Your task to perform on an android device: What's the weather? Image 0: 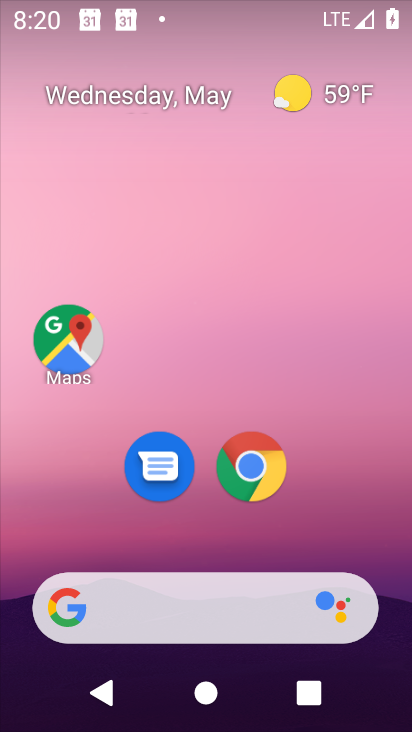
Step 0: drag from (334, 536) to (326, 288)
Your task to perform on an android device: What's the weather? Image 1: 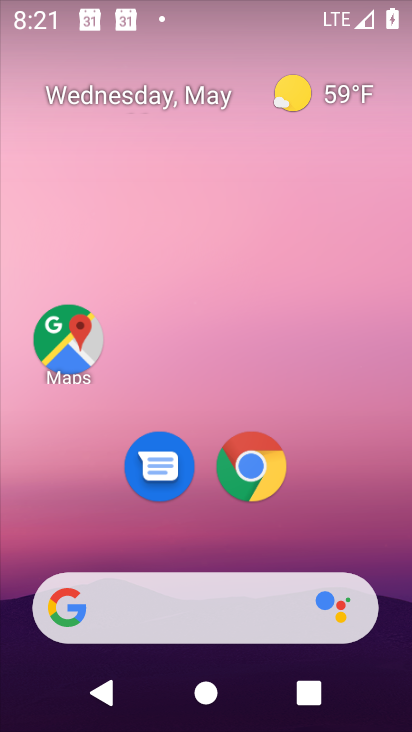
Step 1: click (252, 474)
Your task to perform on an android device: What's the weather? Image 2: 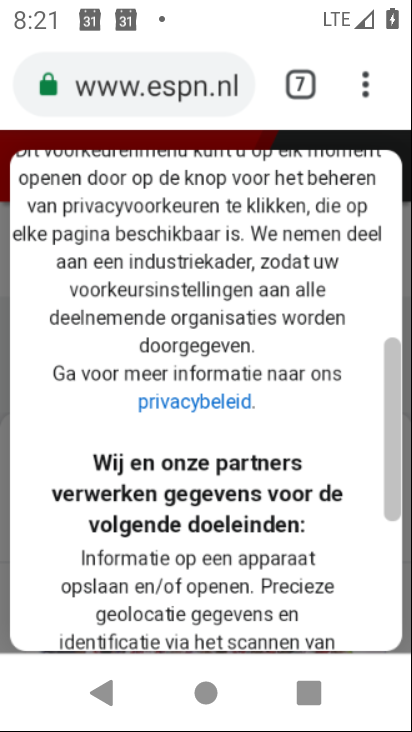
Step 2: click (345, 81)
Your task to perform on an android device: What's the weather? Image 3: 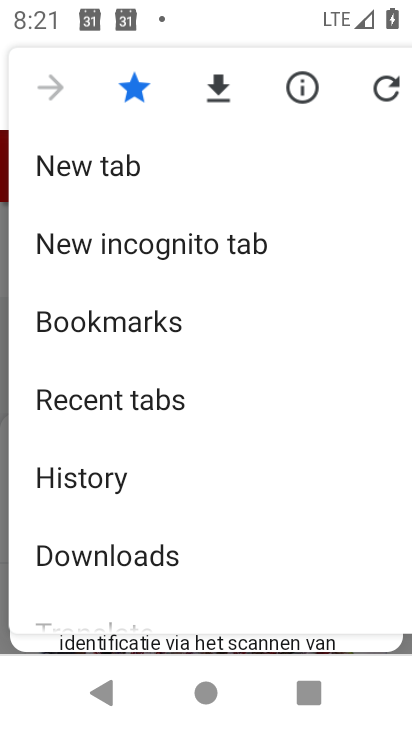
Step 3: click (108, 164)
Your task to perform on an android device: What's the weather? Image 4: 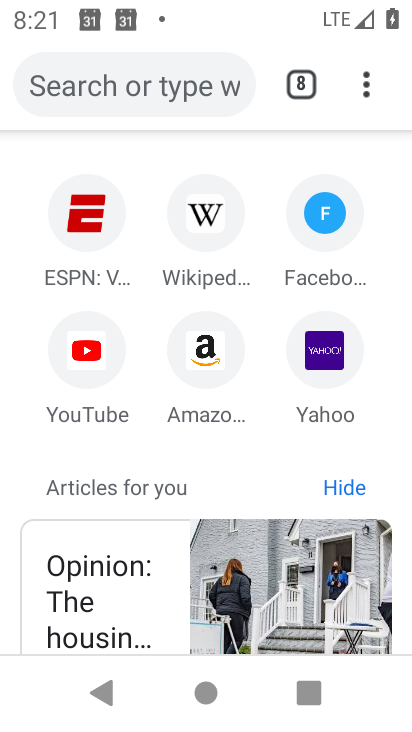
Step 4: click (90, 74)
Your task to perform on an android device: What's the weather? Image 5: 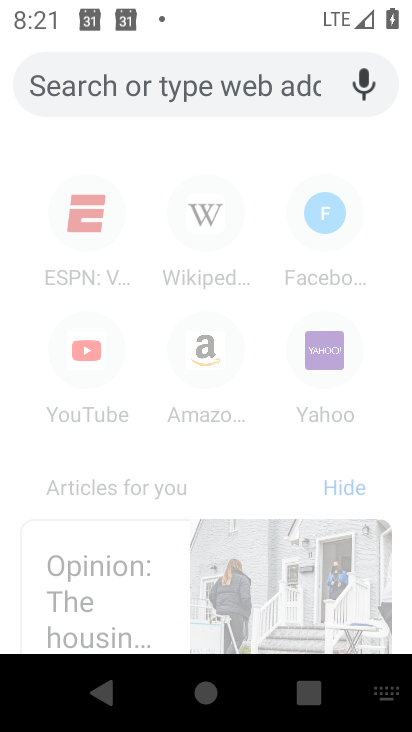
Step 5: type "What's the weather?"
Your task to perform on an android device: What's the weather? Image 6: 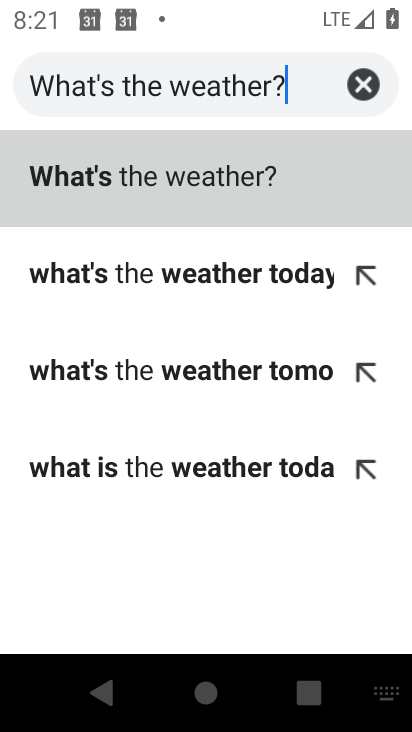
Step 6: click (192, 168)
Your task to perform on an android device: What's the weather? Image 7: 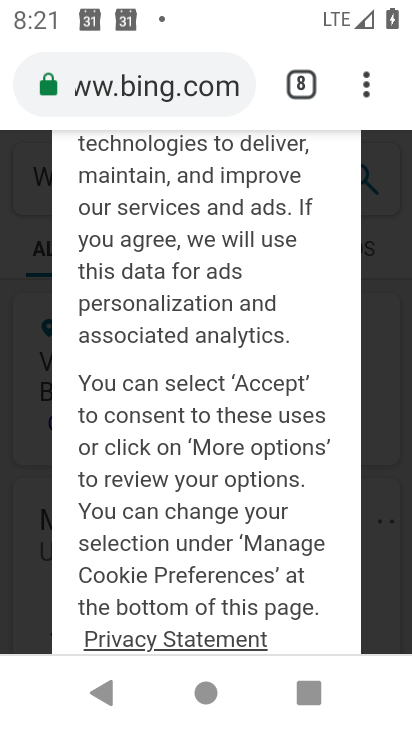
Step 7: task complete